Your task to perform on an android device: snooze an email in the gmail app Image 0: 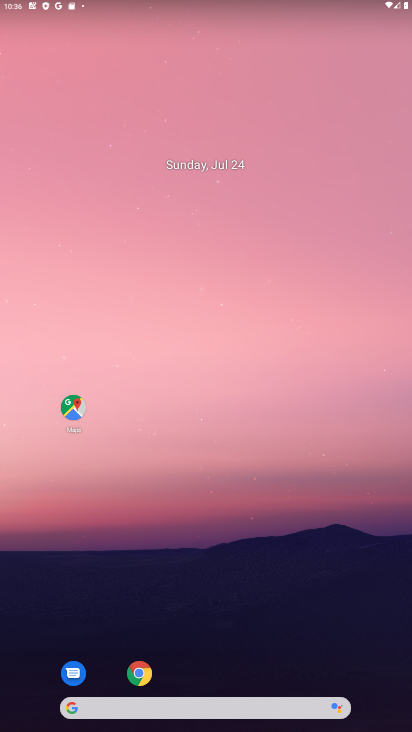
Step 0: drag from (33, 607) to (97, 211)
Your task to perform on an android device: snooze an email in the gmail app Image 1: 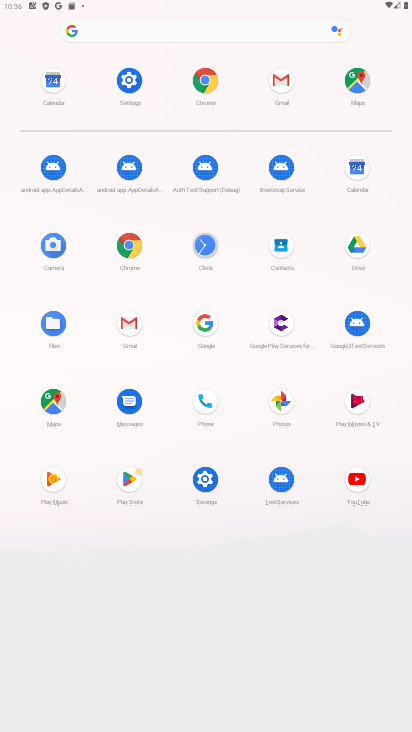
Step 1: click (119, 324)
Your task to perform on an android device: snooze an email in the gmail app Image 2: 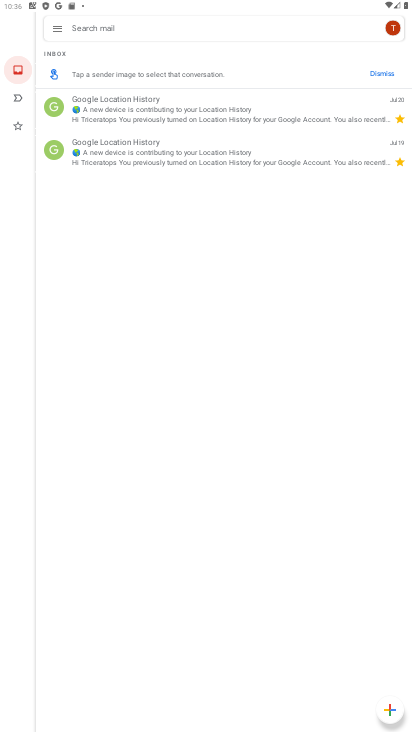
Step 2: click (64, 21)
Your task to perform on an android device: snooze an email in the gmail app Image 3: 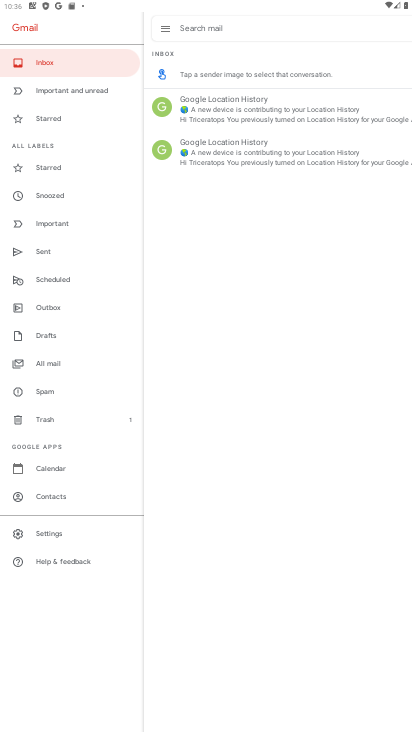
Step 3: click (34, 199)
Your task to perform on an android device: snooze an email in the gmail app Image 4: 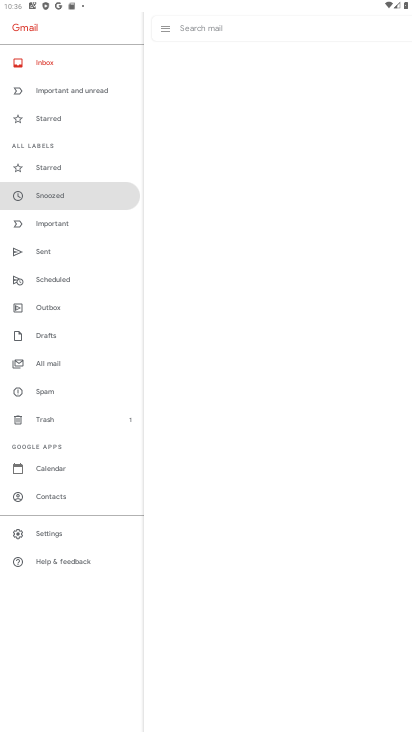
Step 4: click (37, 191)
Your task to perform on an android device: snooze an email in the gmail app Image 5: 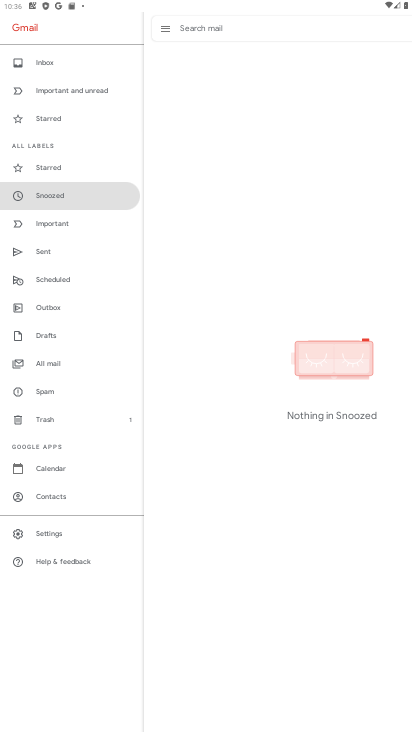
Step 5: task complete